Your task to perform on an android device: What's the weather today? Image 0: 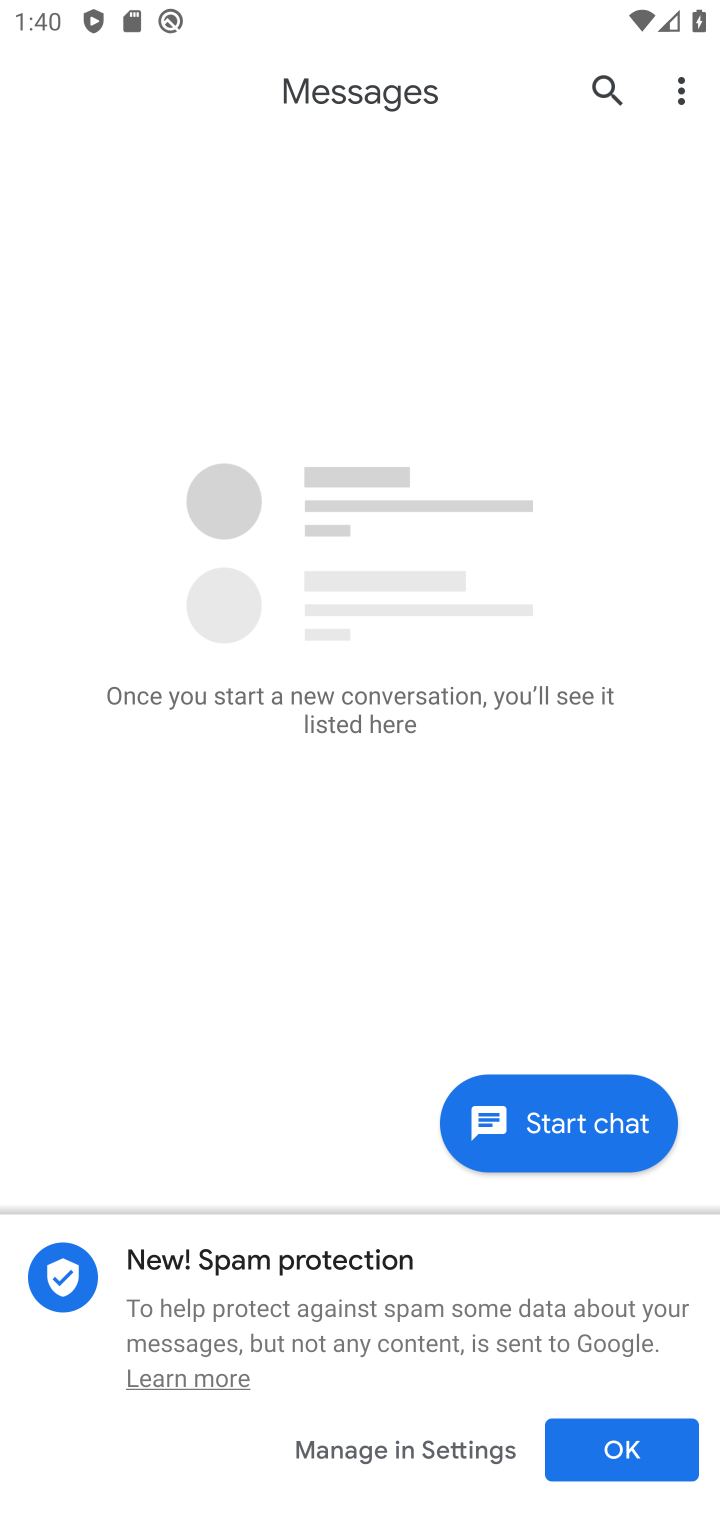
Step 0: press home button
Your task to perform on an android device: What's the weather today? Image 1: 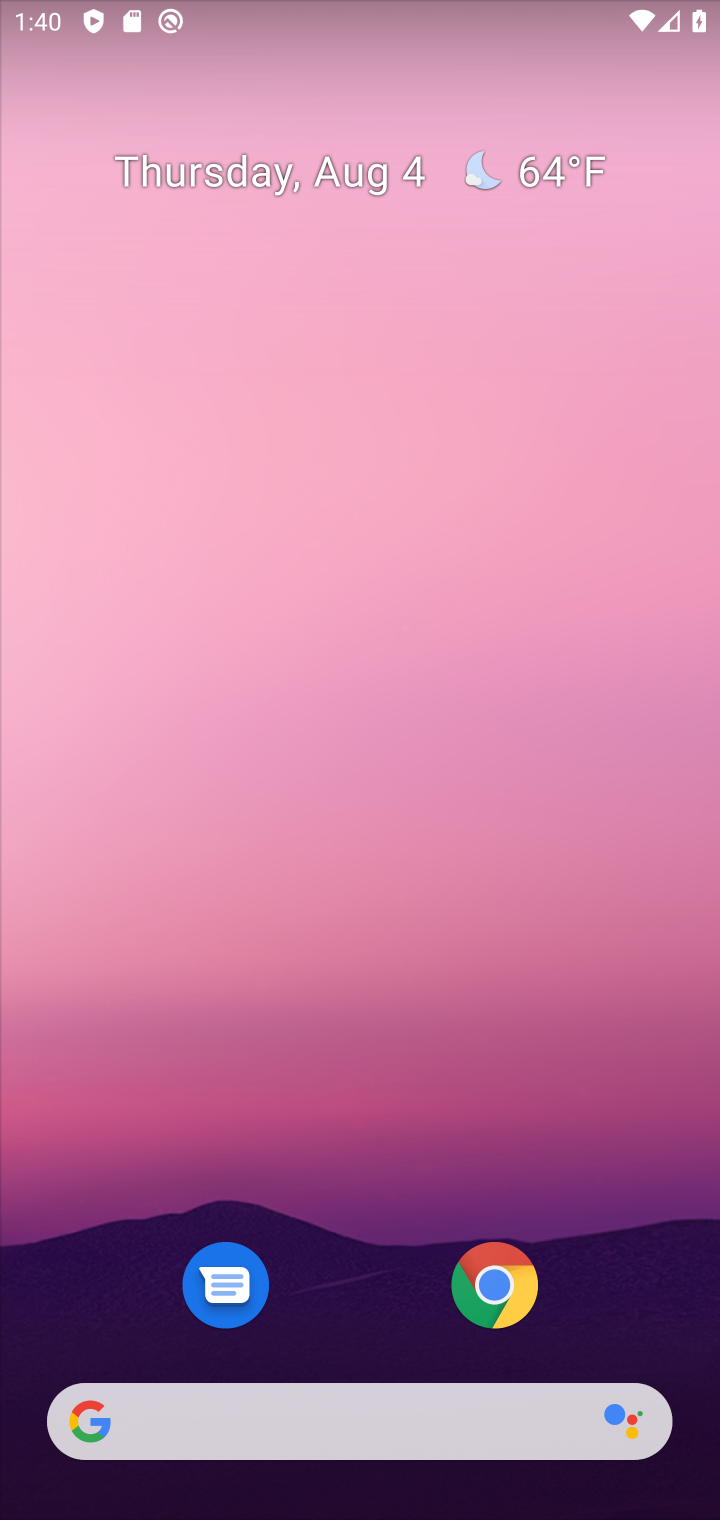
Step 1: click (558, 180)
Your task to perform on an android device: What's the weather today? Image 2: 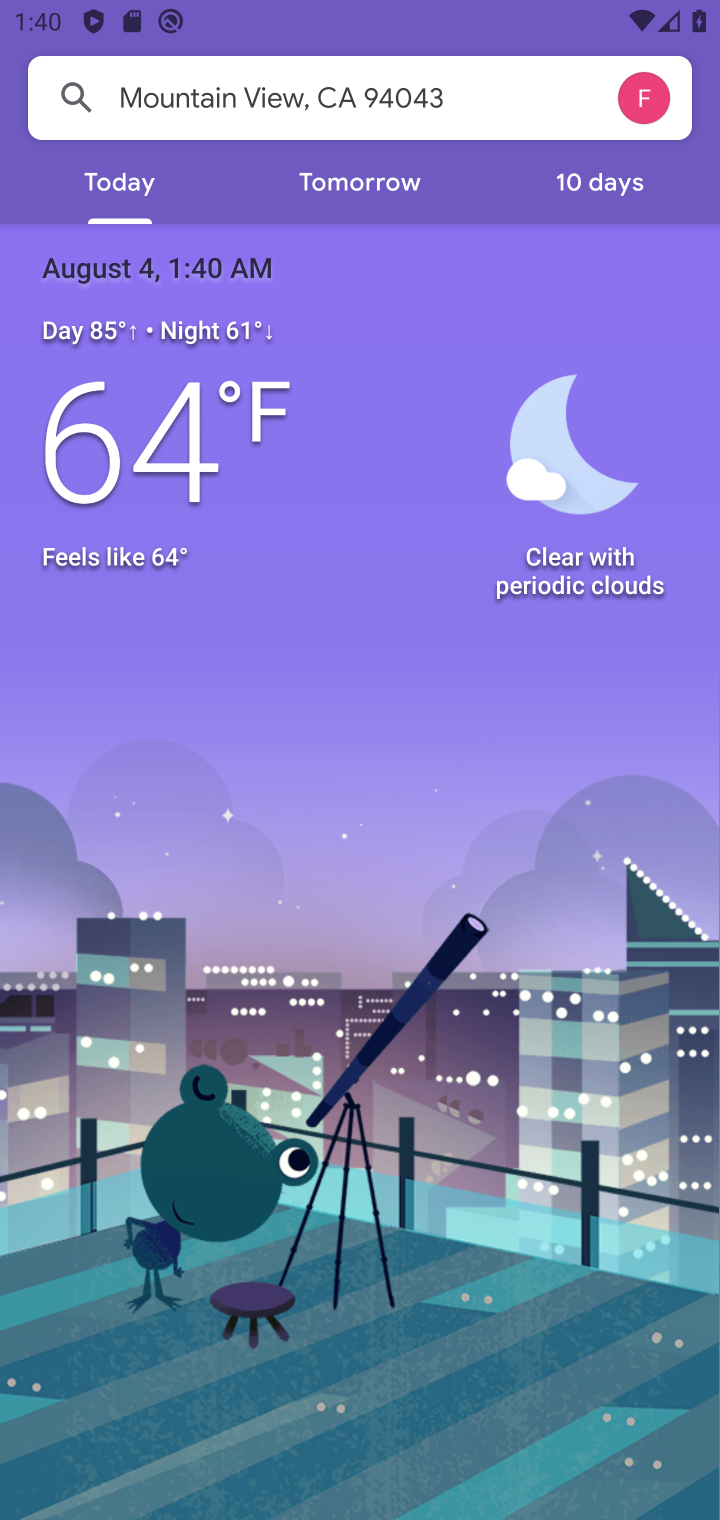
Step 2: task complete